Your task to perform on an android device: open a new tab in the chrome app Image 0: 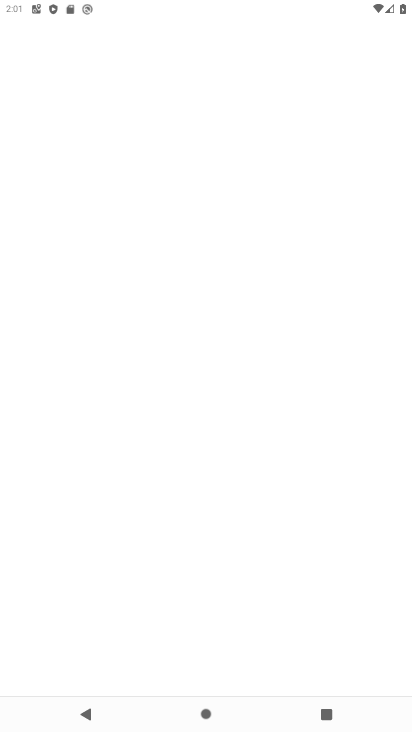
Step 0: drag from (137, 618) to (179, 312)
Your task to perform on an android device: open a new tab in the chrome app Image 1: 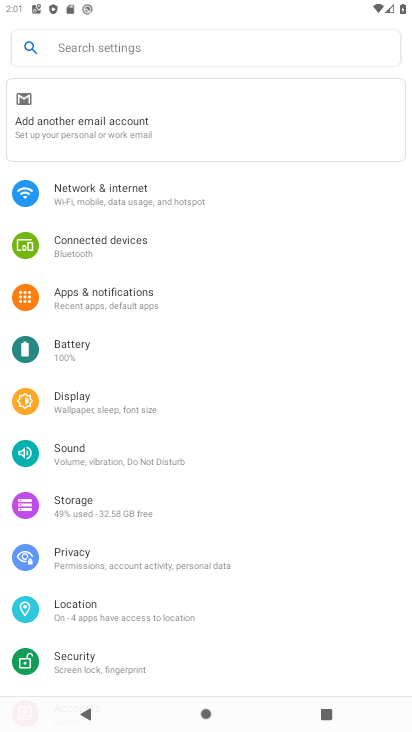
Step 1: press home button
Your task to perform on an android device: open a new tab in the chrome app Image 2: 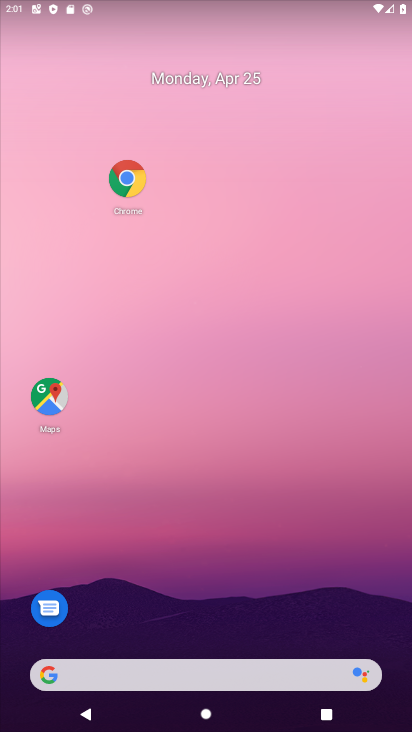
Step 2: drag from (165, 503) to (198, 179)
Your task to perform on an android device: open a new tab in the chrome app Image 3: 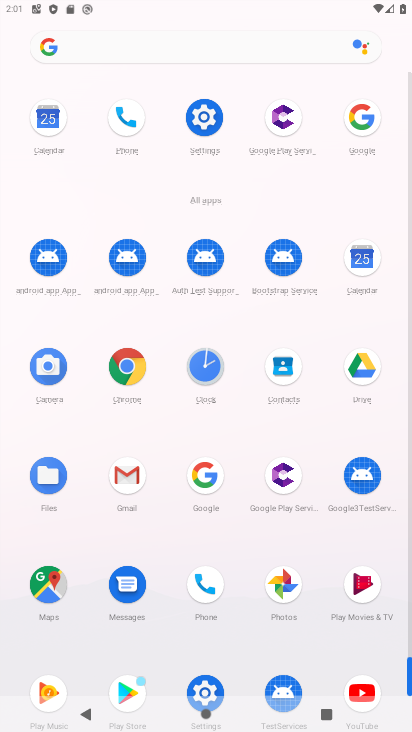
Step 3: click (124, 372)
Your task to perform on an android device: open a new tab in the chrome app Image 4: 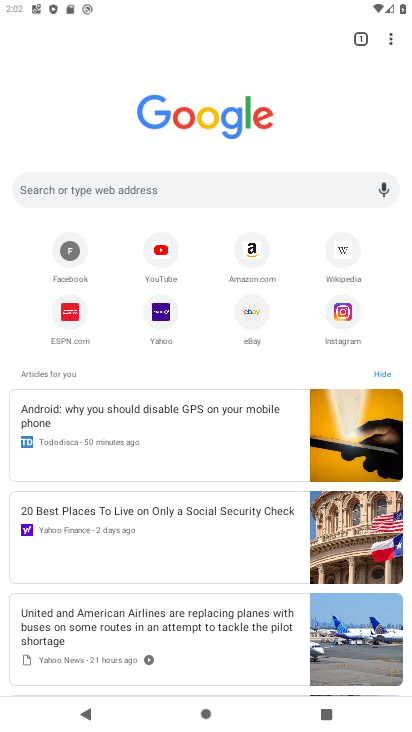
Step 4: click (393, 39)
Your task to perform on an android device: open a new tab in the chrome app Image 5: 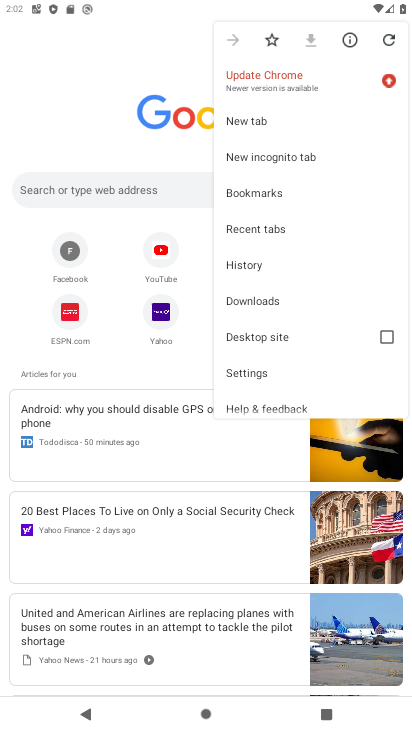
Step 5: click (281, 121)
Your task to perform on an android device: open a new tab in the chrome app Image 6: 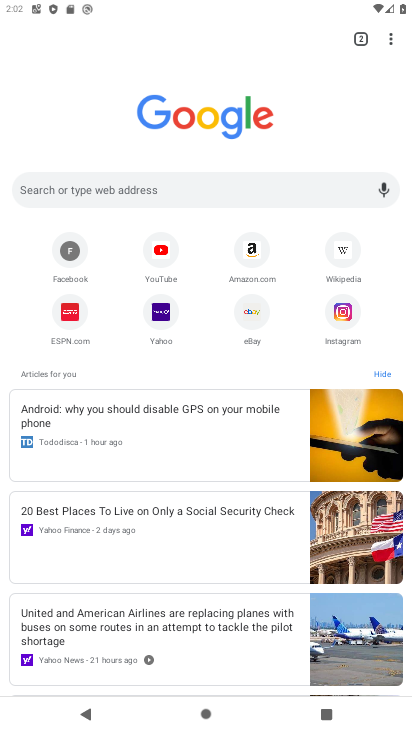
Step 6: task complete